Your task to perform on an android device: Add "macbook pro" to the cart on walmart Image 0: 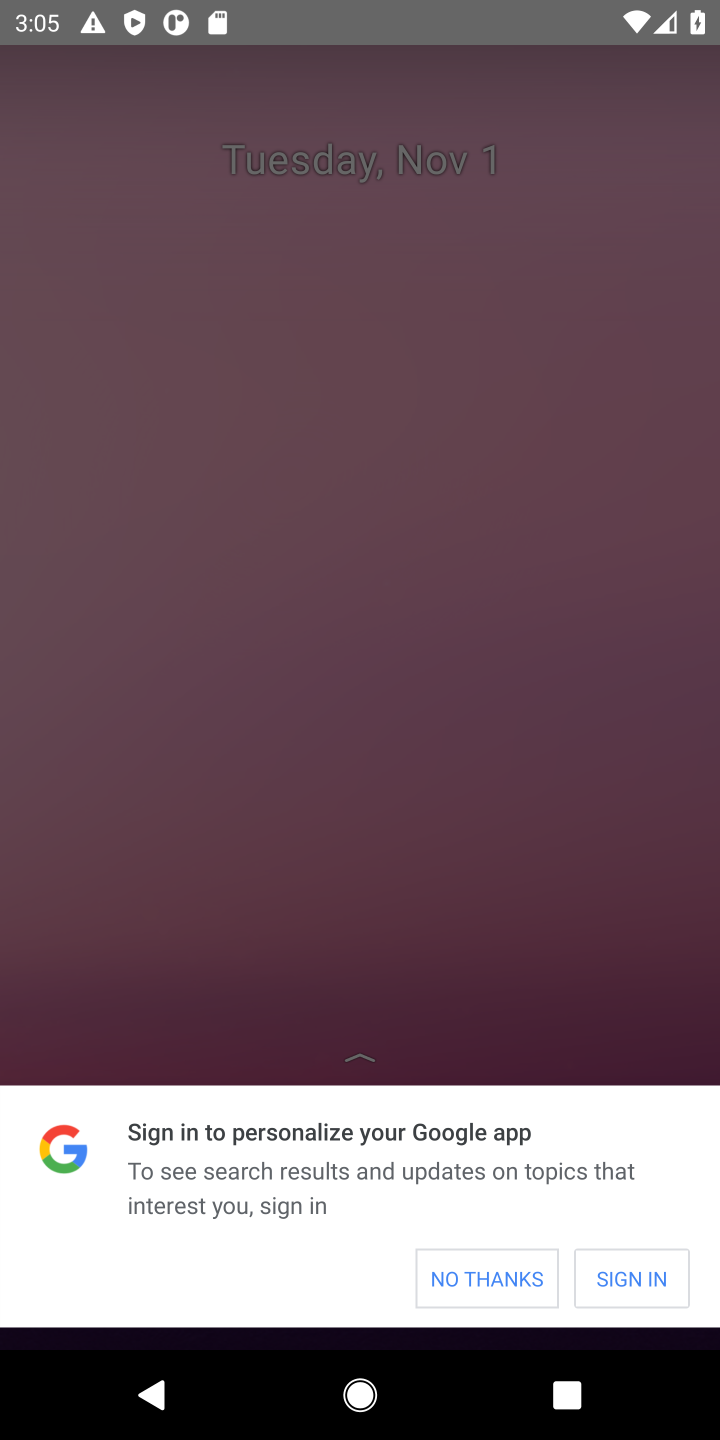
Step 0: press home button
Your task to perform on an android device: Add "macbook pro" to the cart on walmart Image 1: 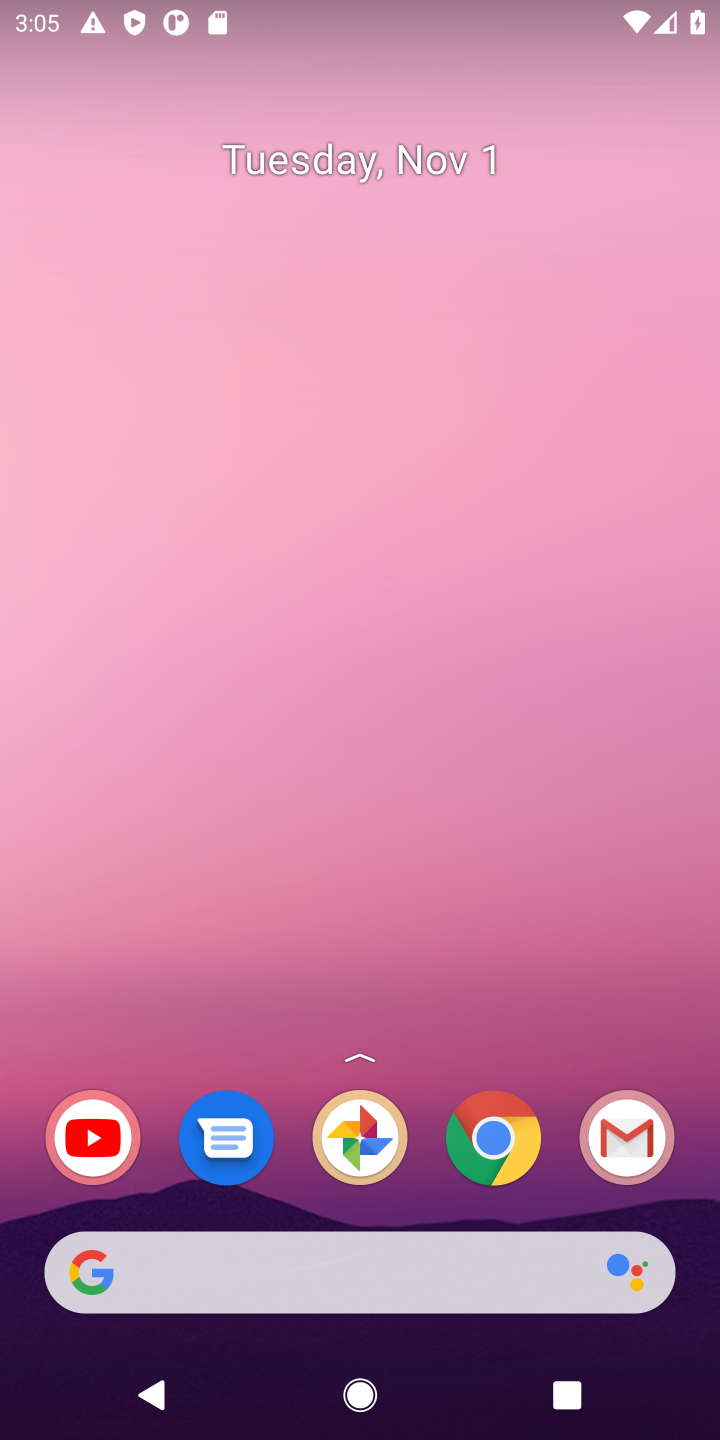
Step 1: click (499, 1142)
Your task to perform on an android device: Add "macbook pro" to the cart on walmart Image 2: 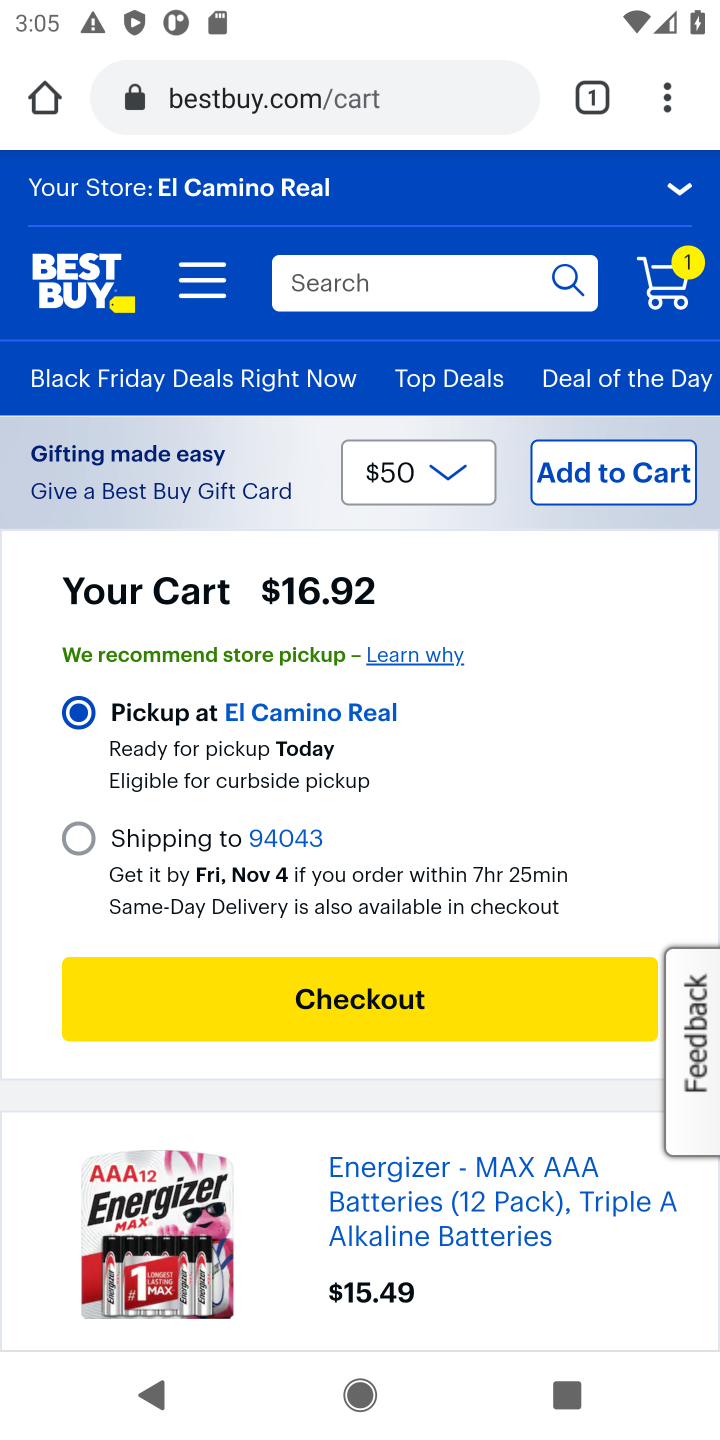
Step 2: click (357, 95)
Your task to perform on an android device: Add "macbook pro" to the cart on walmart Image 3: 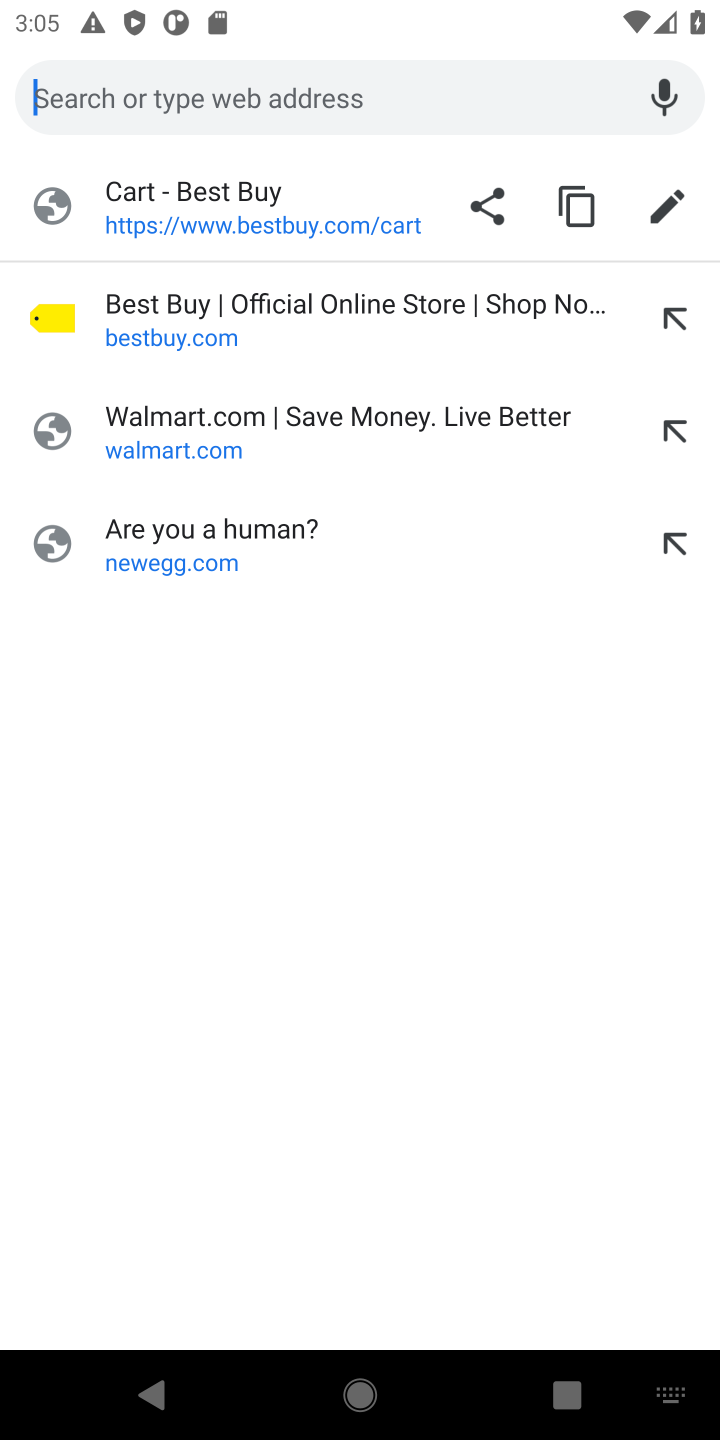
Step 3: type "walmart"
Your task to perform on an android device: Add "macbook pro" to the cart on walmart Image 4: 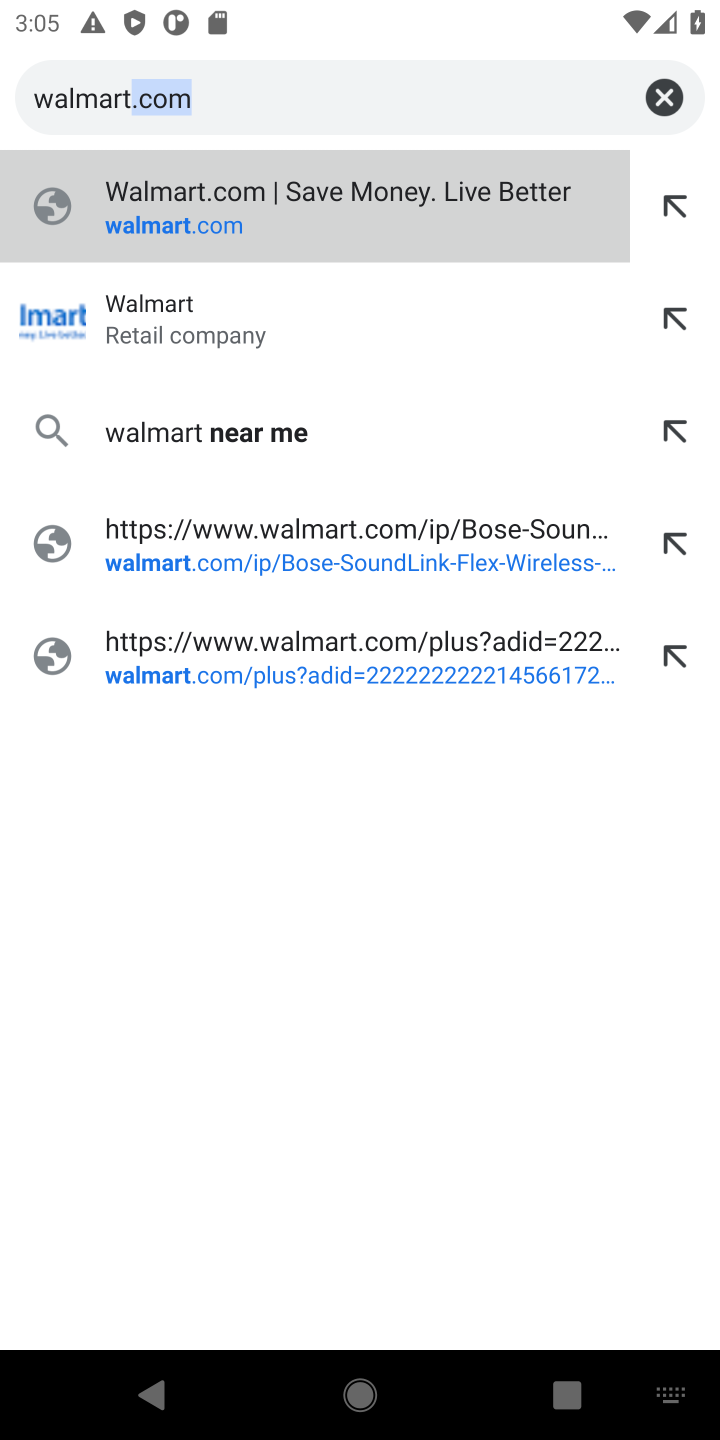
Step 4: click (279, 303)
Your task to perform on an android device: Add "macbook pro" to the cart on walmart Image 5: 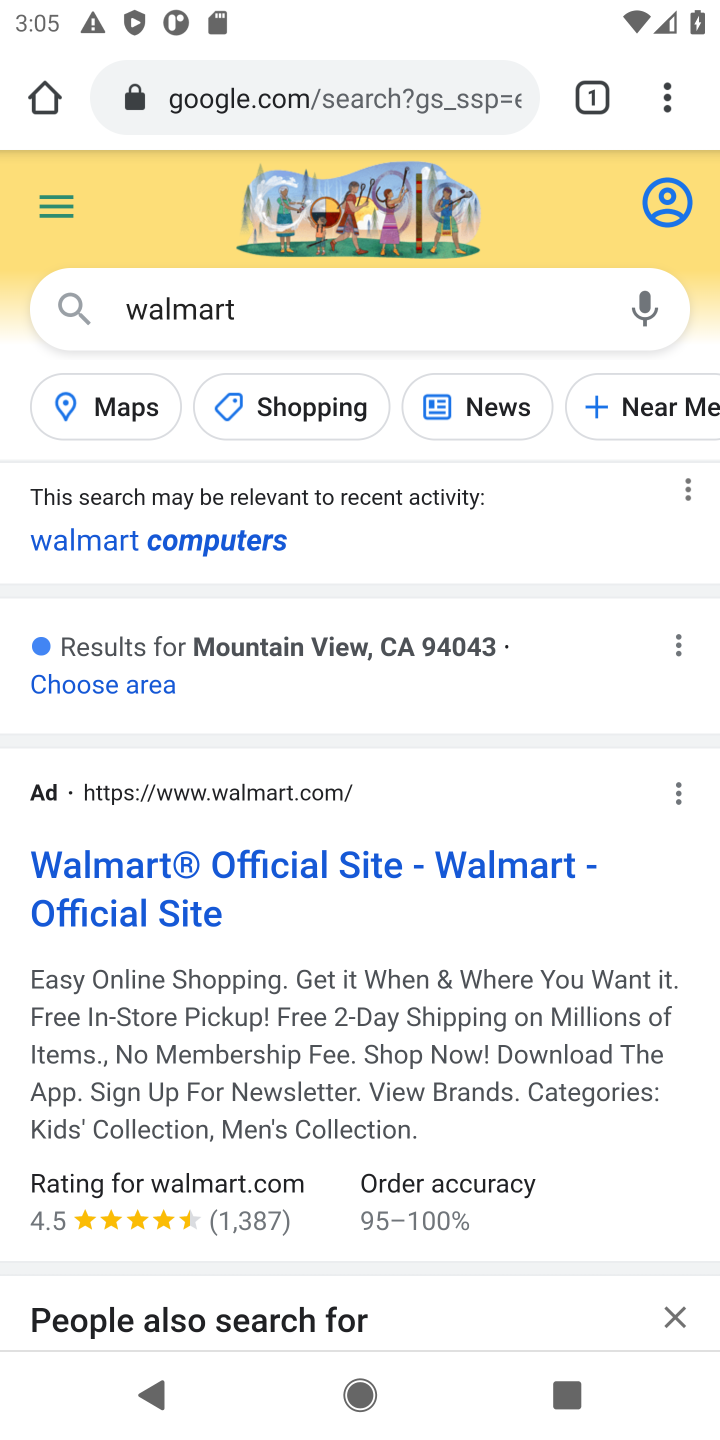
Step 5: click (216, 899)
Your task to perform on an android device: Add "macbook pro" to the cart on walmart Image 6: 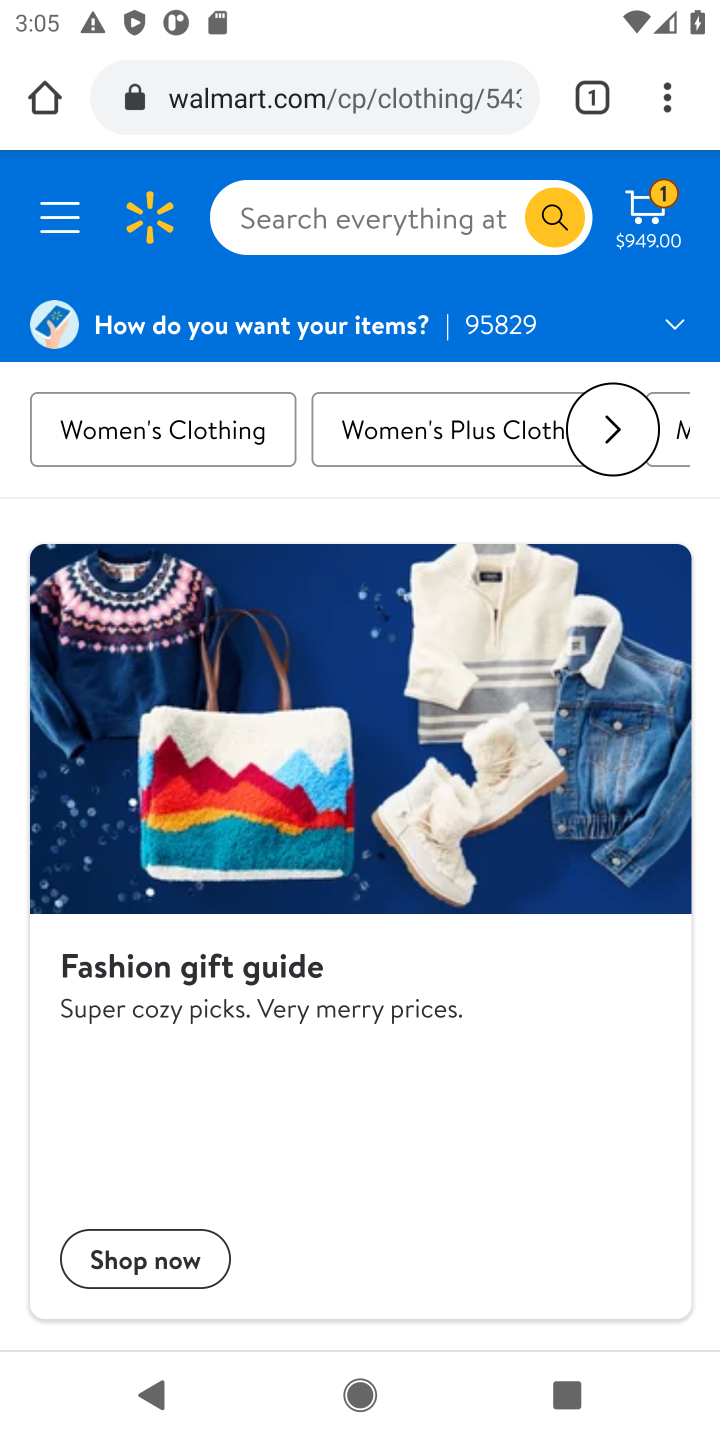
Step 6: click (388, 224)
Your task to perform on an android device: Add "macbook pro" to the cart on walmart Image 7: 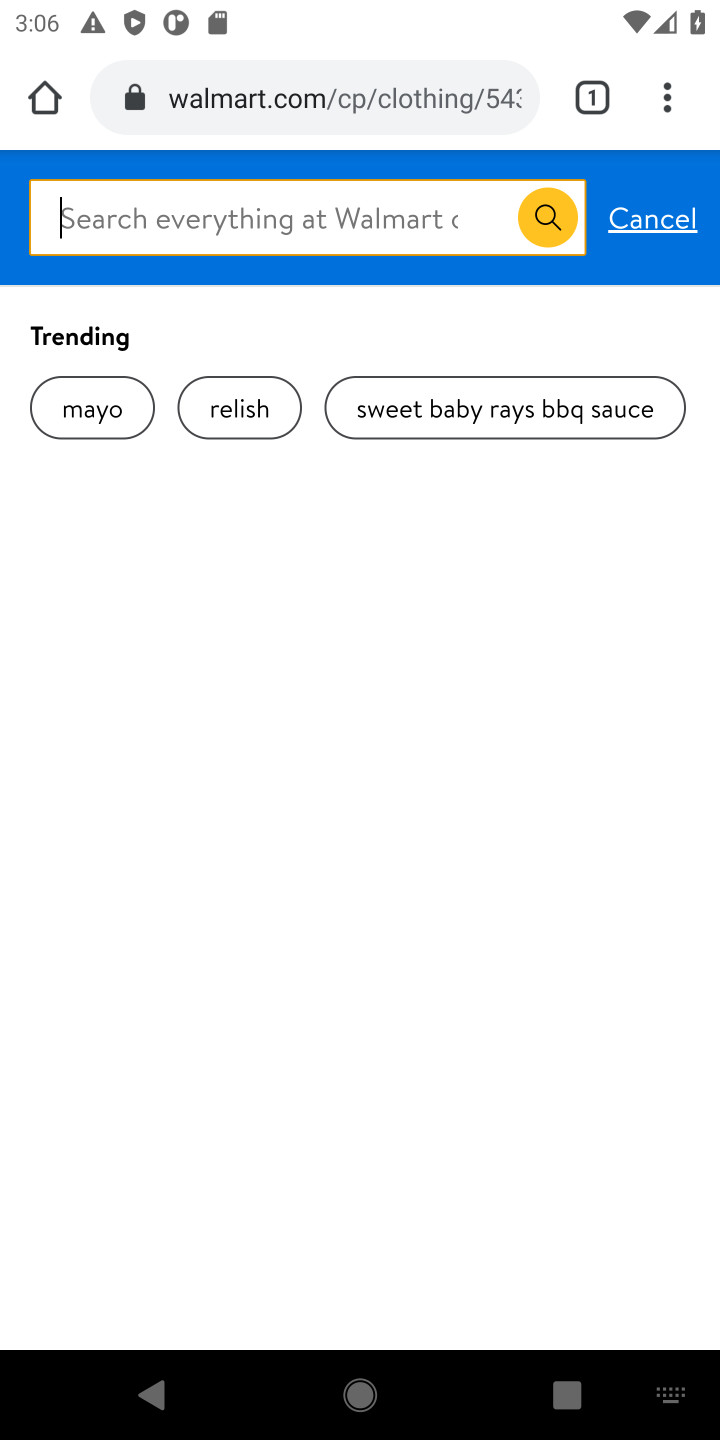
Step 7: type "macbook pro"
Your task to perform on an android device: Add "macbook pro" to the cart on walmart Image 8: 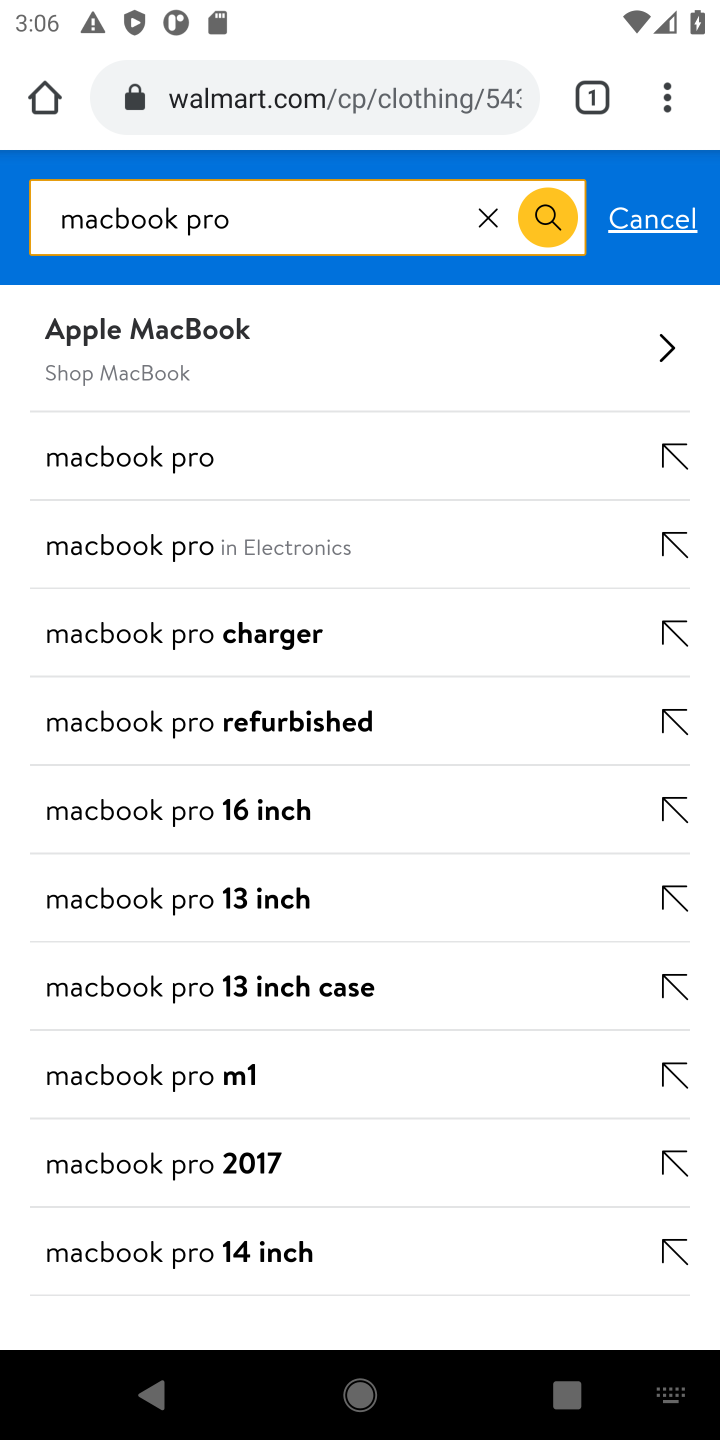
Step 8: click (538, 212)
Your task to perform on an android device: Add "macbook pro" to the cart on walmart Image 9: 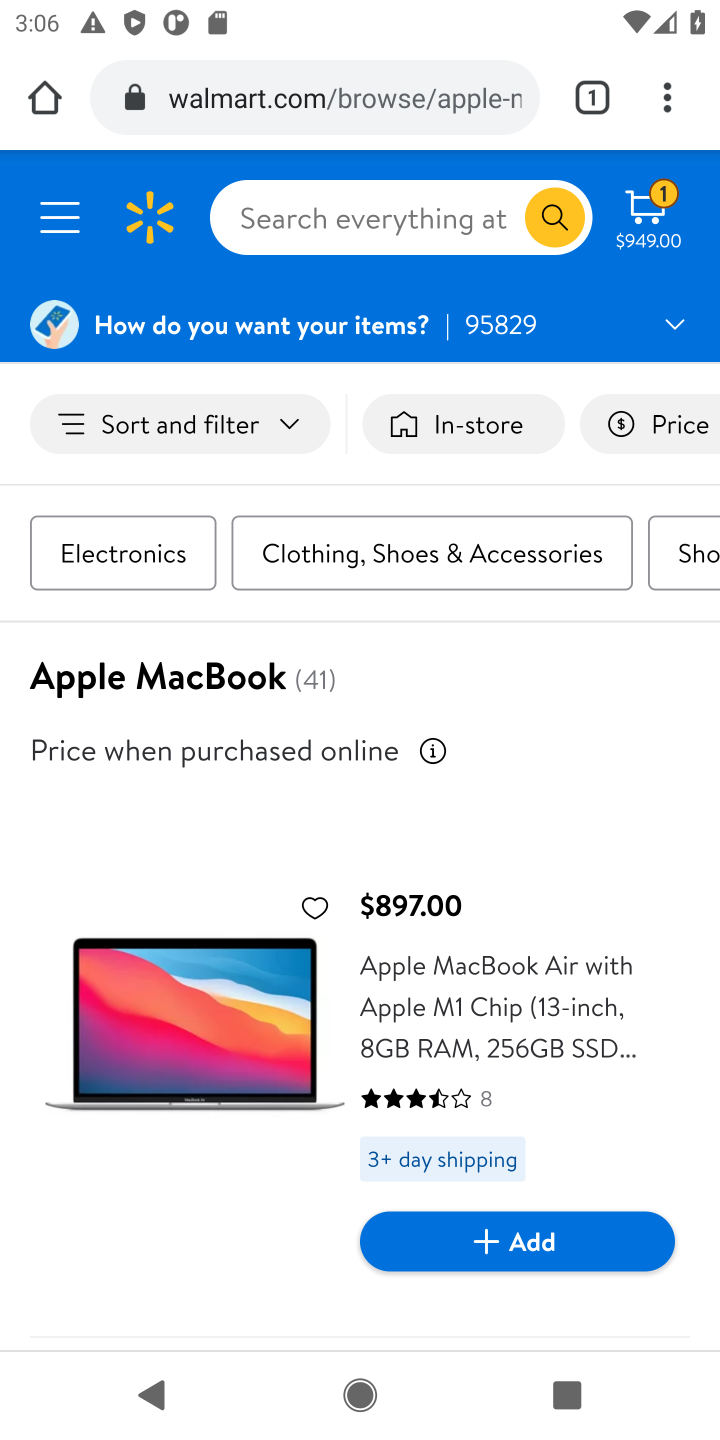
Step 9: click (528, 1243)
Your task to perform on an android device: Add "macbook pro" to the cart on walmart Image 10: 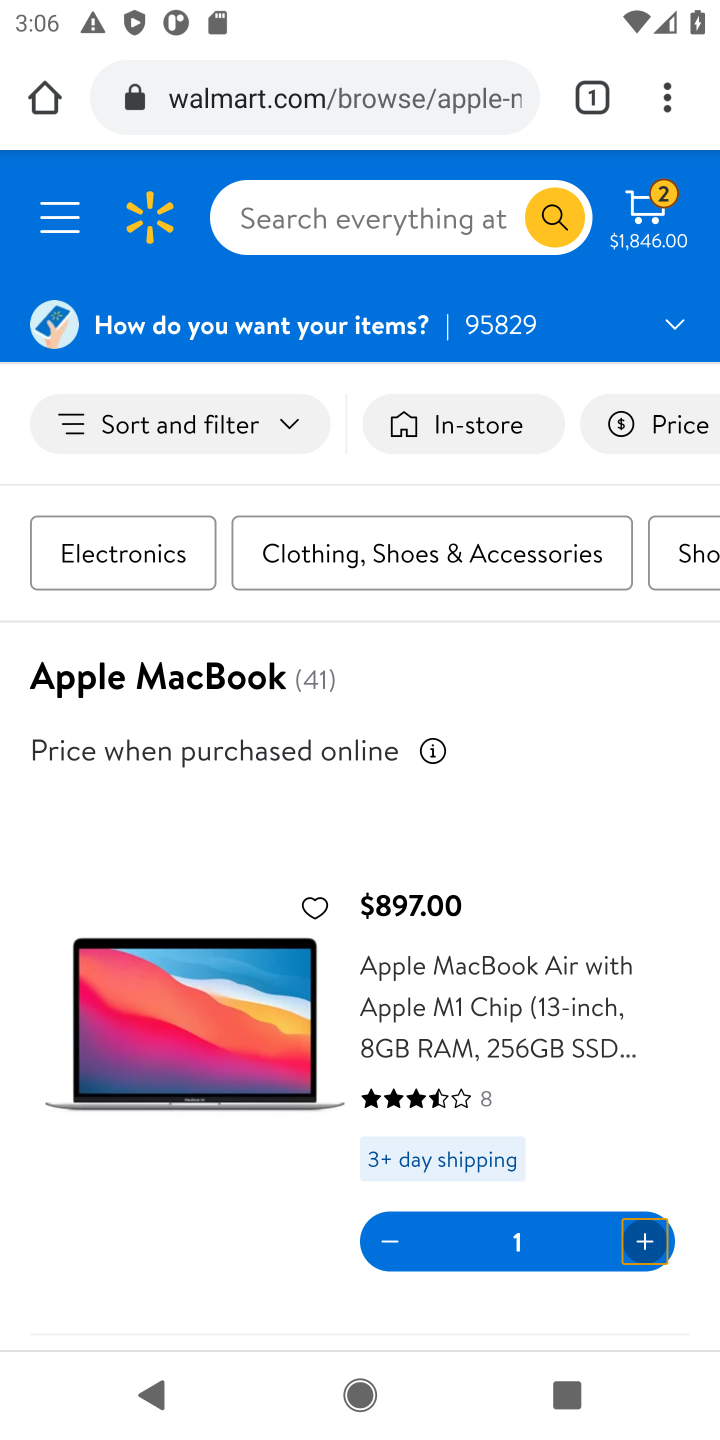
Step 10: task complete